Your task to perform on an android device: toggle priority inbox in the gmail app Image 0: 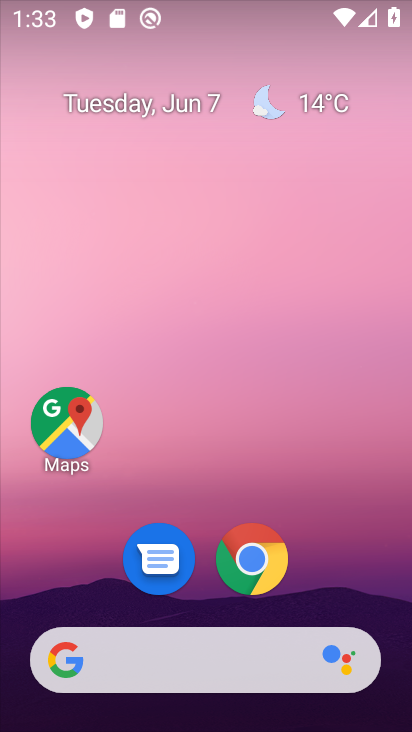
Step 0: drag from (307, 505) to (193, 36)
Your task to perform on an android device: toggle priority inbox in the gmail app Image 1: 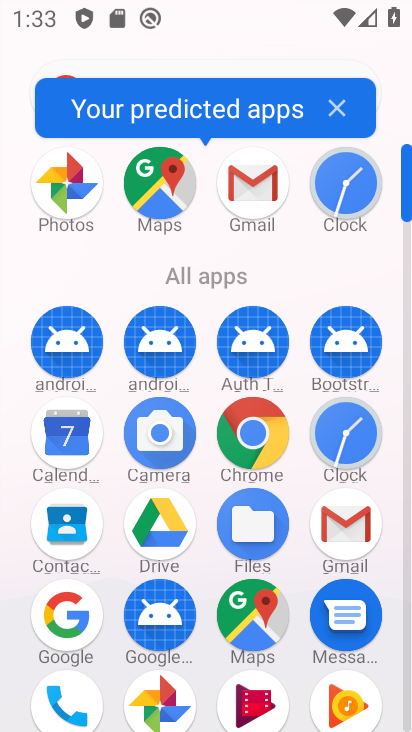
Step 1: drag from (11, 544) to (14, 269)
Your task to perform on an android device: toggle priority inbox in the gmail app Image 2: 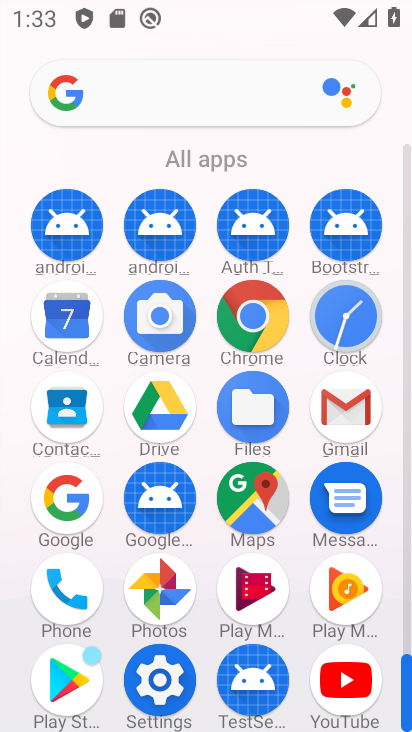
Step 2: click (341, 401)
Your task to perform on an android device: toggle priority inbox in the gmail app Image 3: 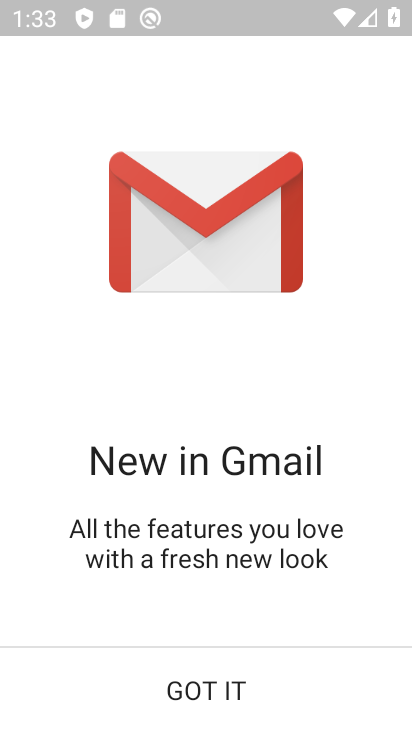
Step 3: click (204, 693)
Your task to perform on an android device: toggle priority inbox in the gmail app Image 4: 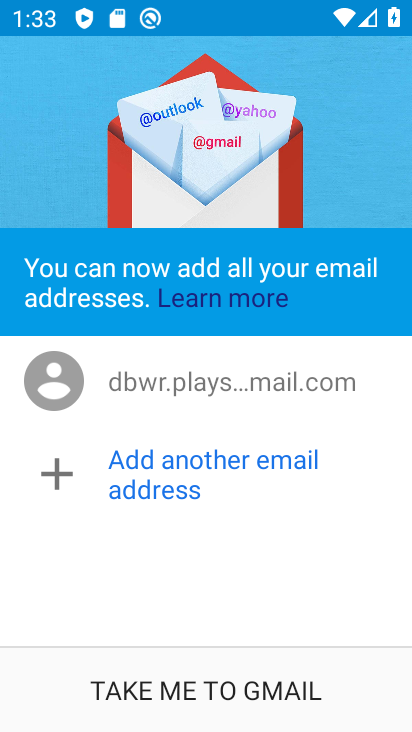
Step 4: click (204, 693)
Your task to perform on an android device: toggle priority inbox in the gmail app Image 5: 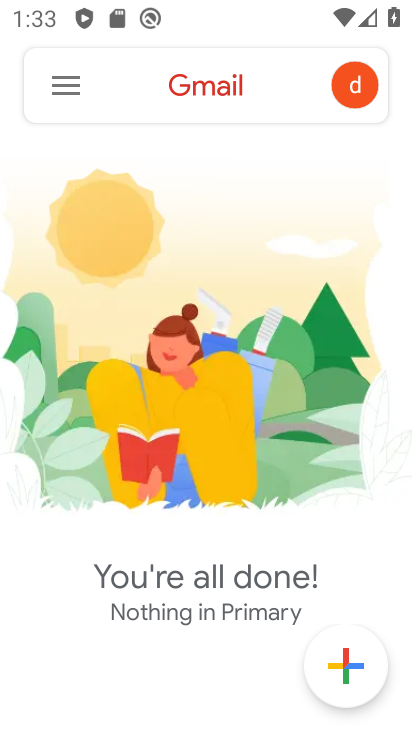
Step 5: click (58, 77)
Your task to perform on an android device: toggle priority inbox in the gmail app Image 6: 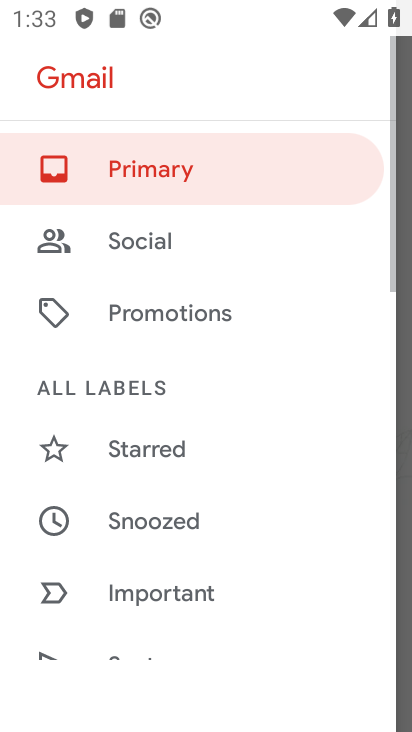
Step 6: drag from (218, 658) to (199, 248)
Your task to perform on an android device: toggle priority inbox in the gmail app Image 7: 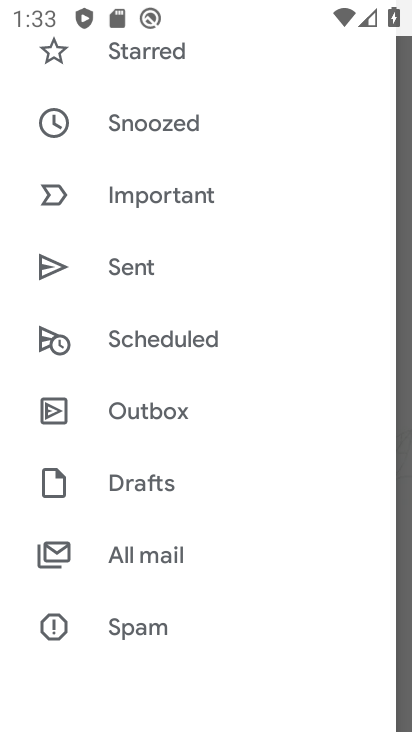
Step 7: drag from (170, 584) to (205, 232)
Your task to perform on an android device: toggle priority inbox in the gmail app Image 8: 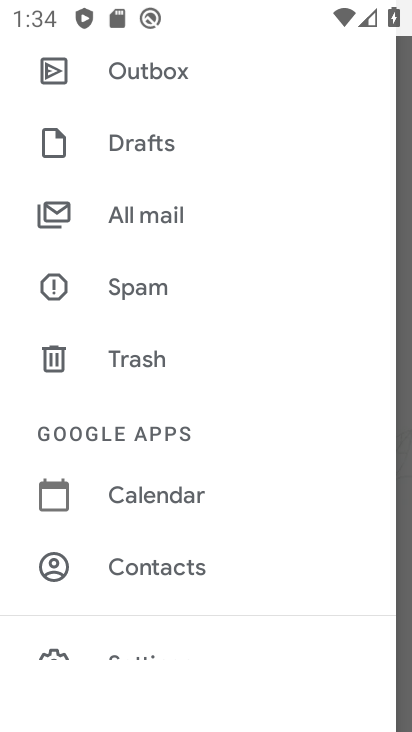
Step 8: drag from (174, 515) to (183, 111)
Your task to perform on an android device: toggle priority inbox in the gmail app Image 9: 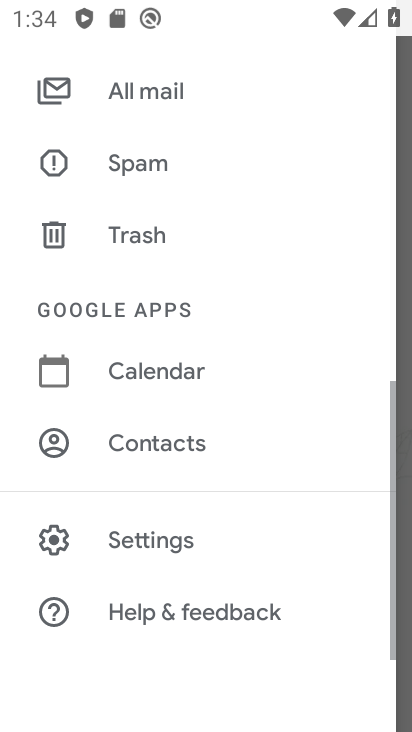
Step 9: click (160, 535)
Your task to perform on an android device: toggle priority inbox in the gmail app Image 10: 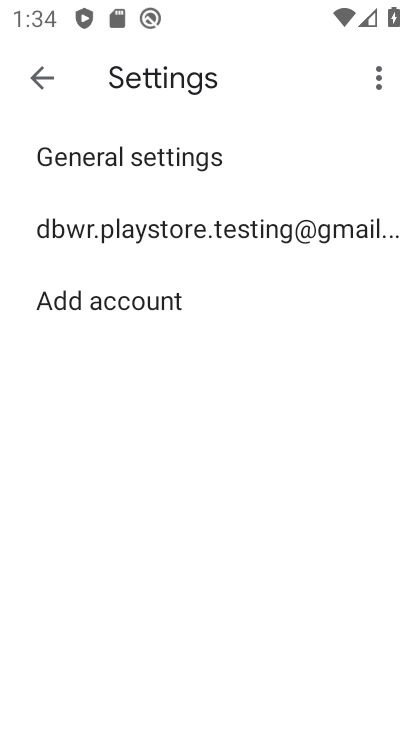
Step 10: click (164, 237)
Your task to perform on an android device: toggle priority inbox in the gmail app Image 11: 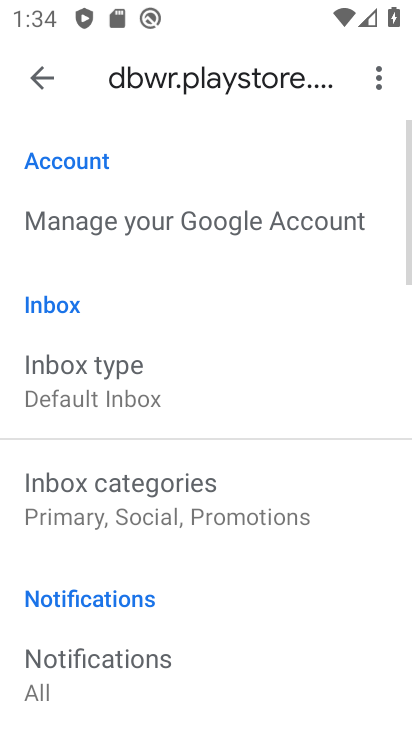
Step 11: click (154, 372)
Your task to perform on an android device: toggle priority inbox in the gmail app Image 12: 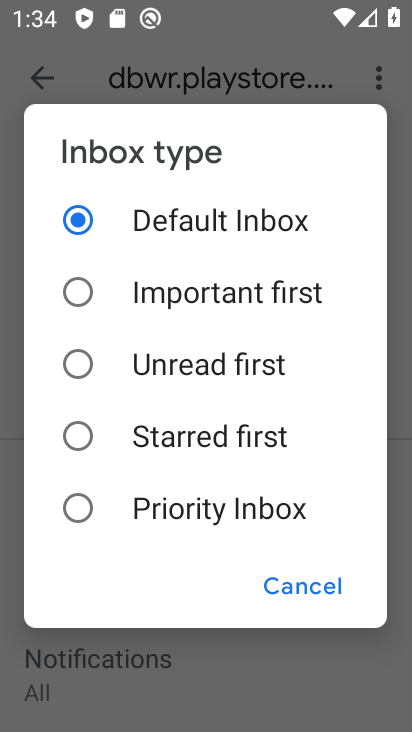
Step 12: click (181, 506)
Your task to perform on an android device: toggle priority inbox in the gmail app Image 13: 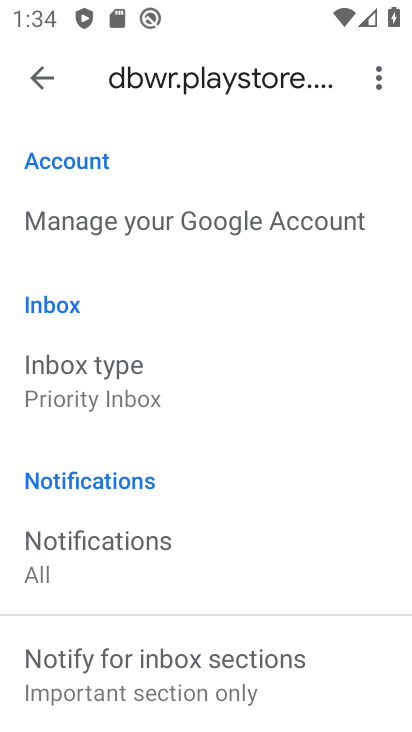
Step 13: task complete